Your task to perform on an android device: Go to Android settings Image 0: 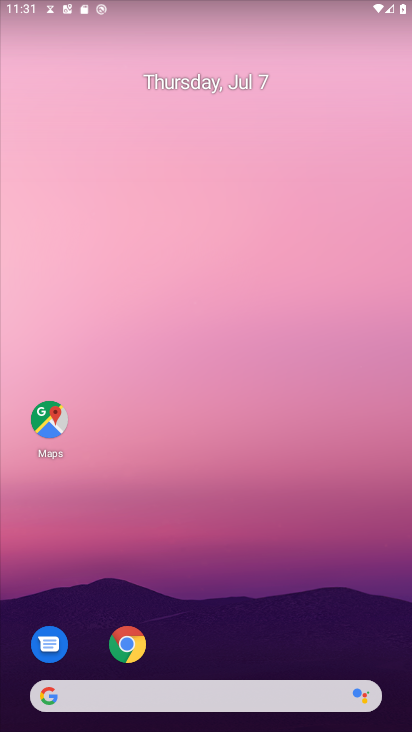
Step 0: press home button
Your task to perform on an android device: Go to Android settings Image 1: 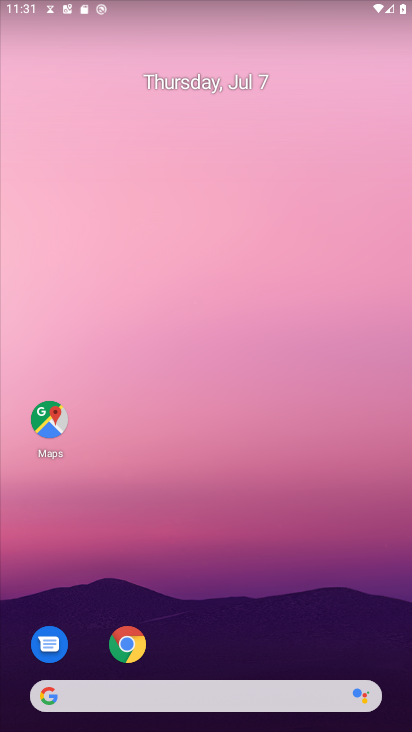
Step 1: drag from (248, 586) to (158, 15)
Your task to perform on an android device: Go to Android settings Image 2: 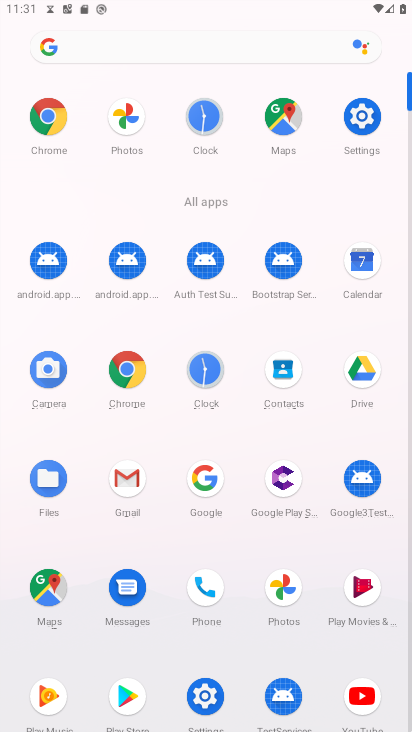
Step 2: click (364, 116)
Your task to perform on an android device: Go to Android settings Image 3: 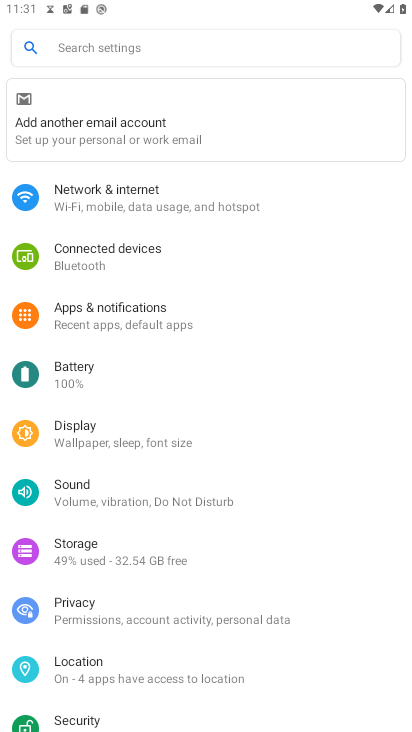
Step 3: task complete